Your task to perform on an android device: View the shopping cart on amazon.com. Image 0: 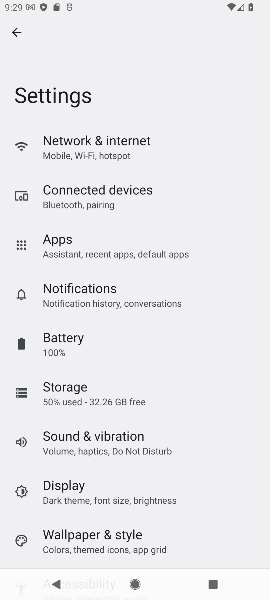
Step 0: press home button
Your task to perform on an android device: View the shopping cart on amazon.com. Image 1: 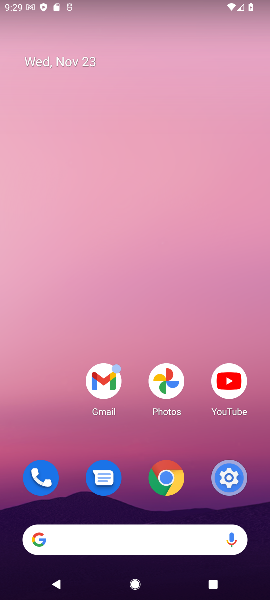
Step 1: click (144, 533)
Your task to perform on an android device: View the shopping cart on amazon.com. Image 2: 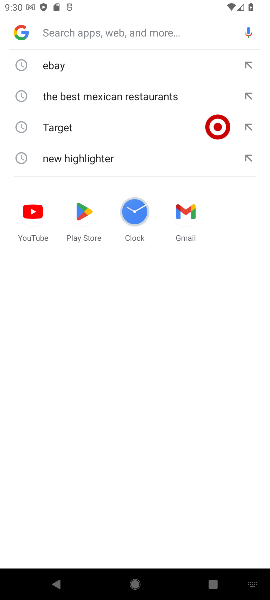
Step 2: type "amazon.com"
Your task to perform on an android device: View the shopping cart on amazon.com. Image 3: 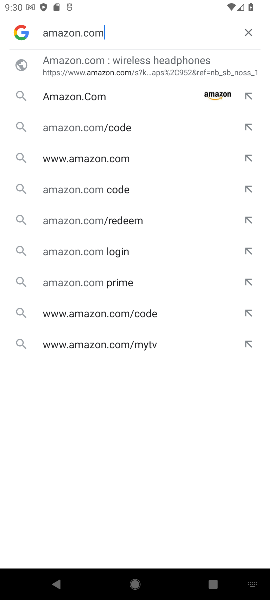
Step 3: click (75, 93)
Your task to perform on an android device: View the shopping cart on amazon.com. Image 4: 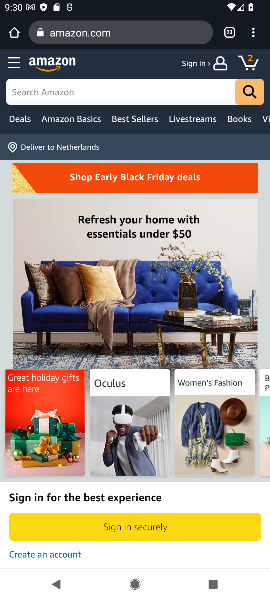
Step 4: click (72, 94)
Your task to perform on an android device: View the shopping cart on amazon.com. Image 5: 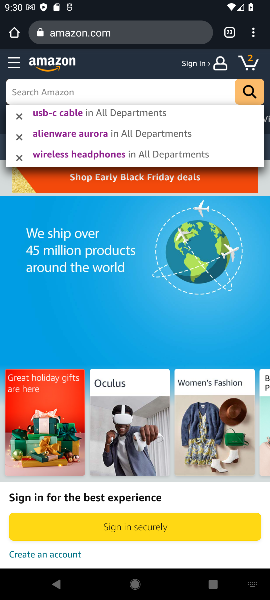
Step 5: click (252, 65)
Your task to perform on an android device: View the shopping cart on amazon.com. Image 6: 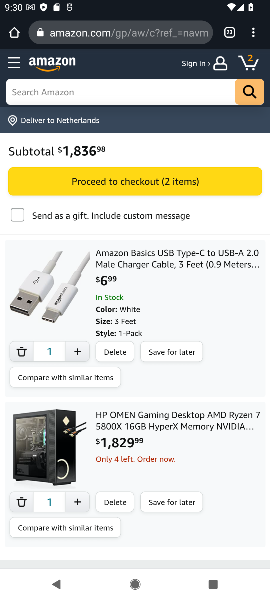
Step 6: task complete